Your task to perform on an android device: What's on my calendar today? Image 0: 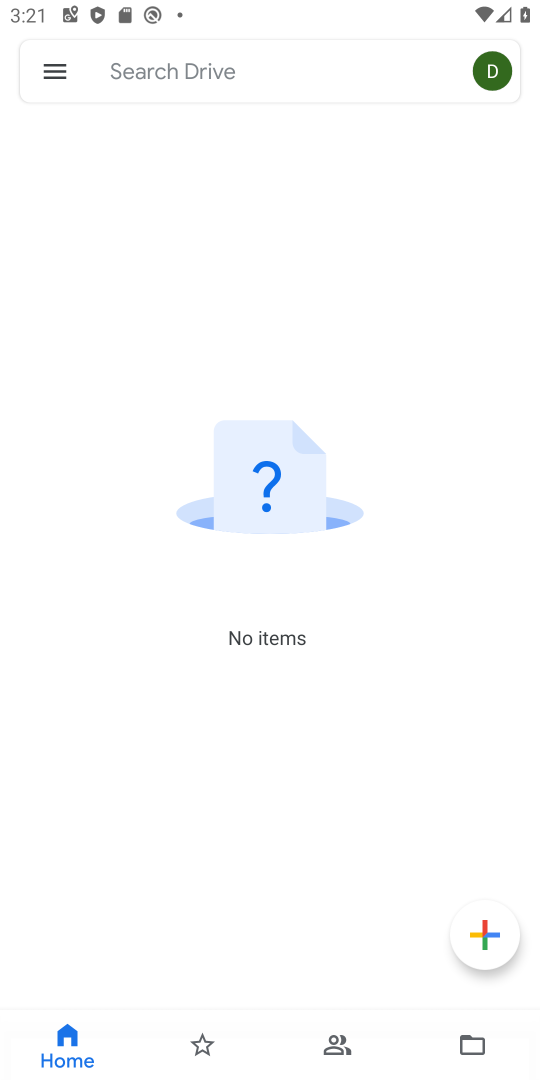
Step 0: press home button
Your task to perform on an android device: What's on my calendar today? Image 1: 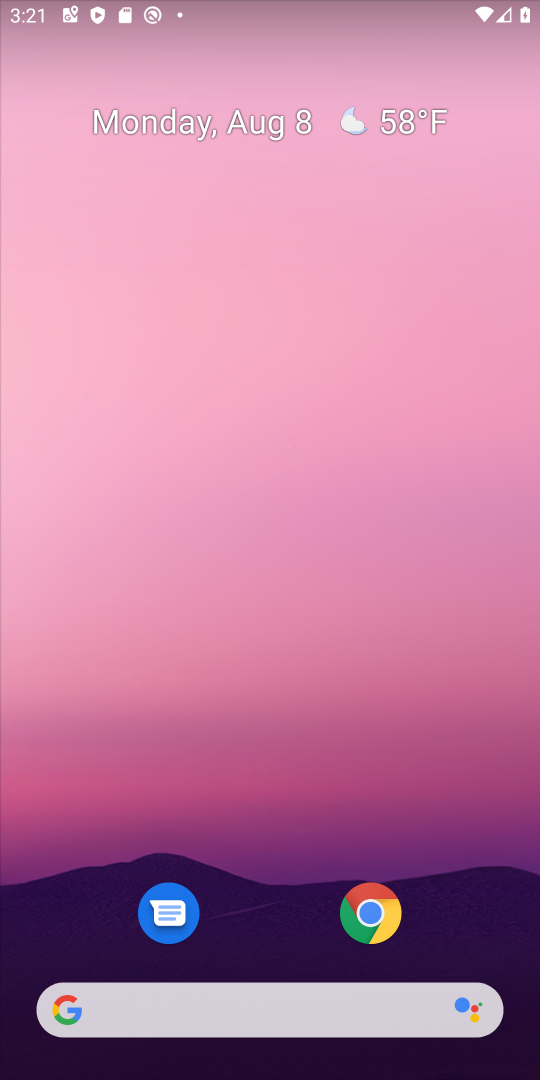
Step 1: drag from (437, 936) to (460, 395)
Your task to perform on an android device: What's on my calendar today? Image 2: 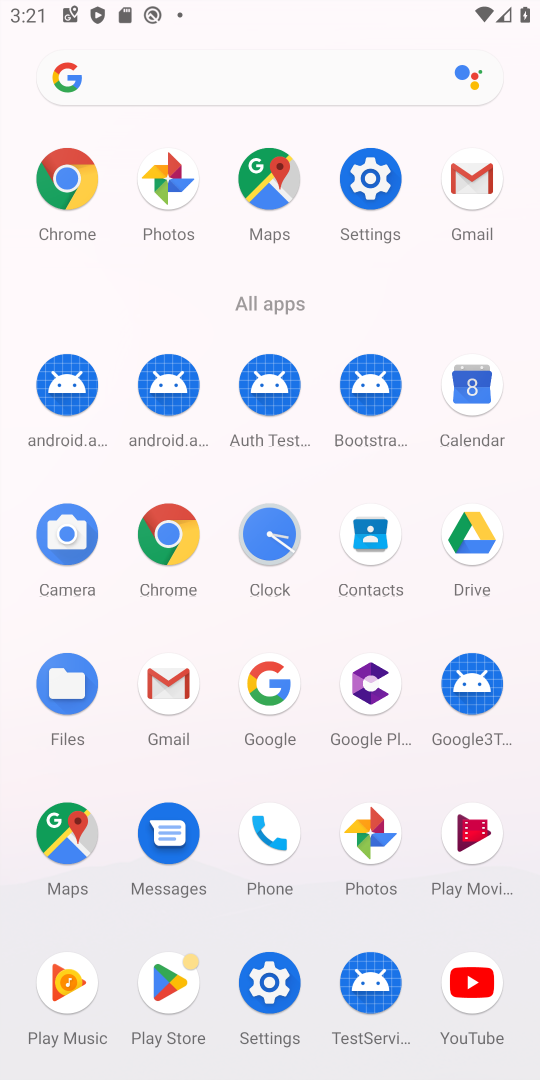
Step 2: click (472, 381)
Your task to perform on an android device: What's on my calendar today? Image 3: 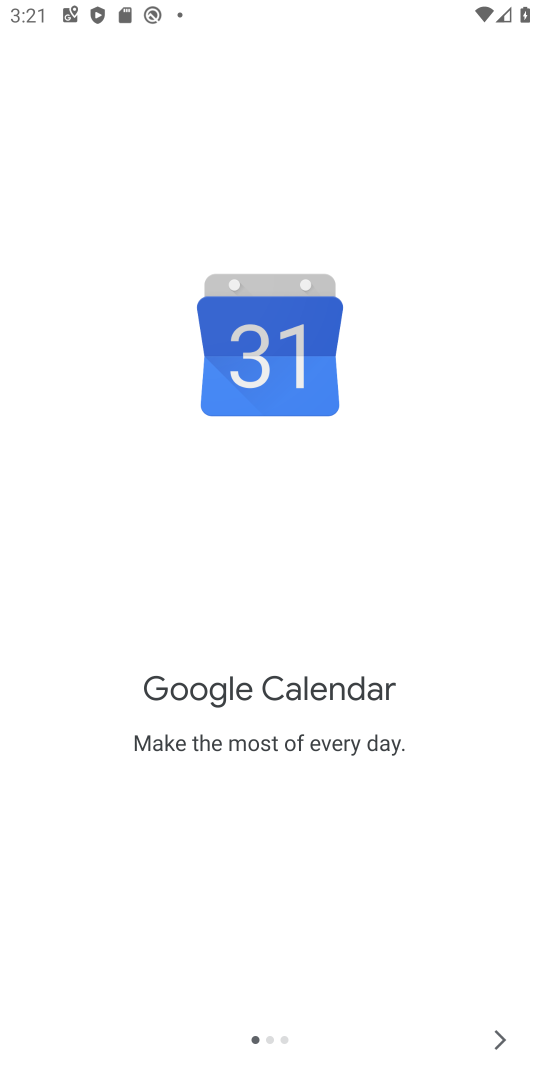
Step 3: click (492, 1037)
Your task to perform on an android device: What's on my calendar today? Image 4: 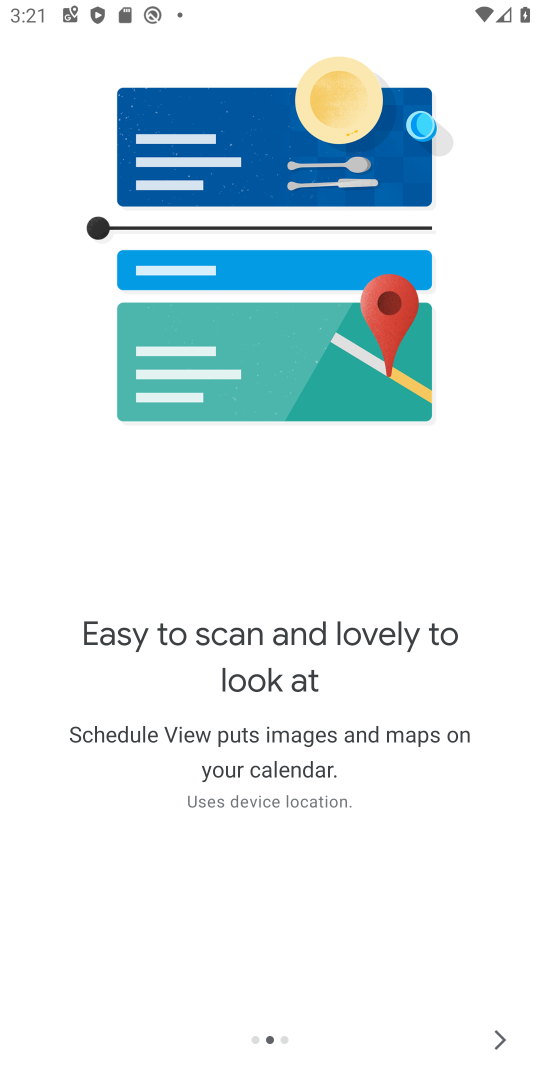
Step 4: click (492, 1037)
Your task to perform on an android device: What's on my calendar today? Image 5: 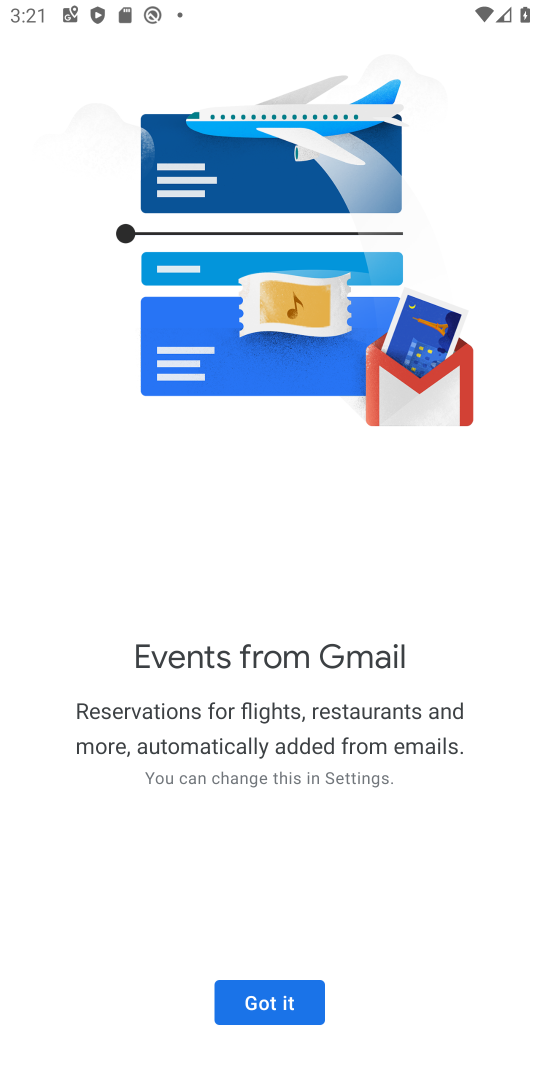
Step 5: click (287, 1008)
Your task to perform on an android device: What's on my calendar today? Image 6: 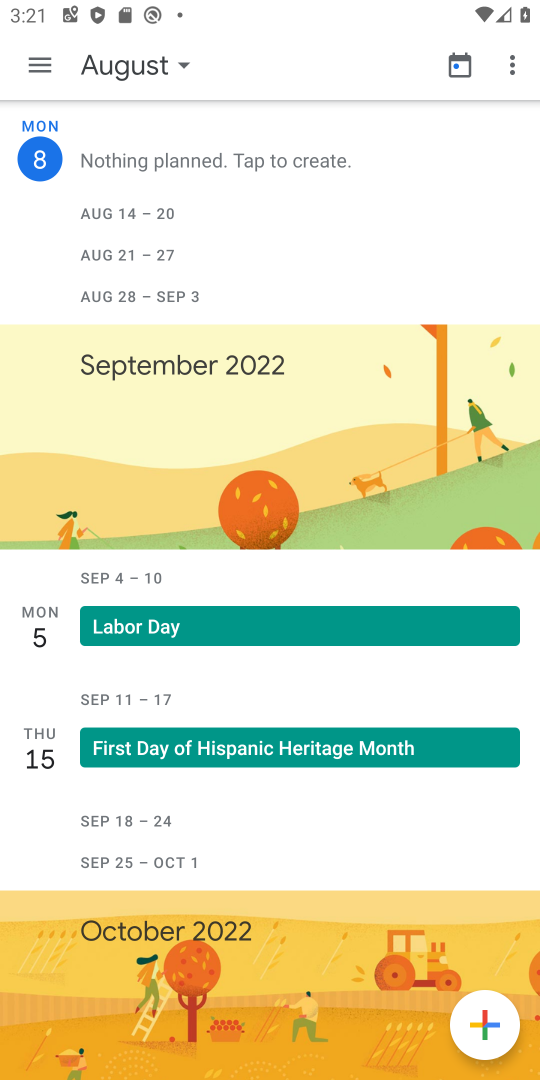
Step 6: task complete